Your task to perform on an android device: open wifi settings Image 0: 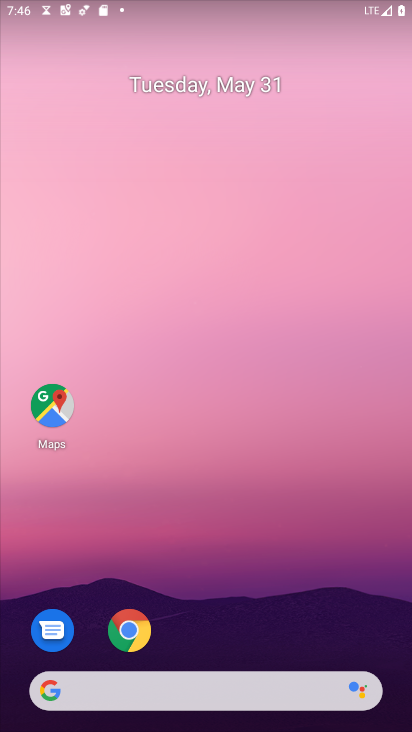
Step 0: drag from (242, 623) to (166, 85)
Your task to perform on an android device: open wifi settings Image 1: 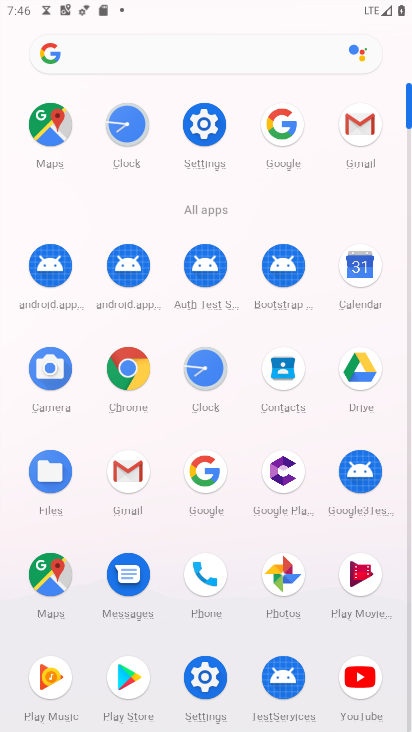
Step 1: click (202, 126)
Your task to perform on an android device: open wifi settings Image 2: 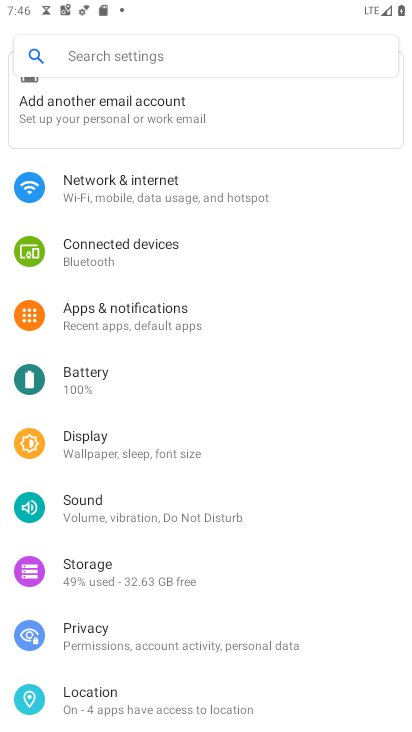
Step 2: click (152, 192)
Your task to perform on an android device: open wifi settings Image 3: 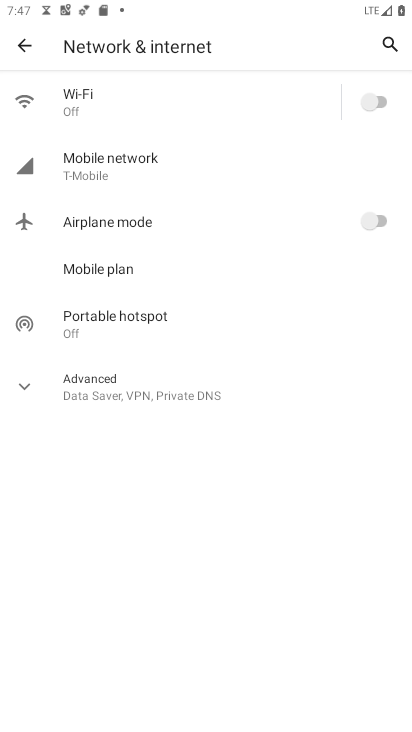
Step 3: click (84, 101)
Your task to perform on an android device: open wifi settings Image 4: 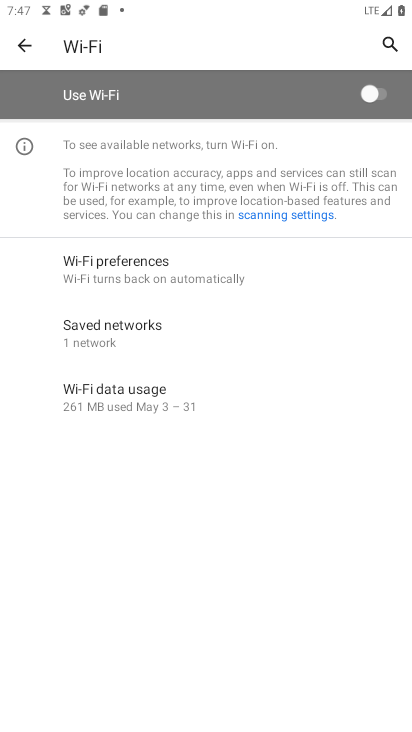
Step 4: task complete